Your task to perform on an android device: search for starred emails in the gmail app Image 0: 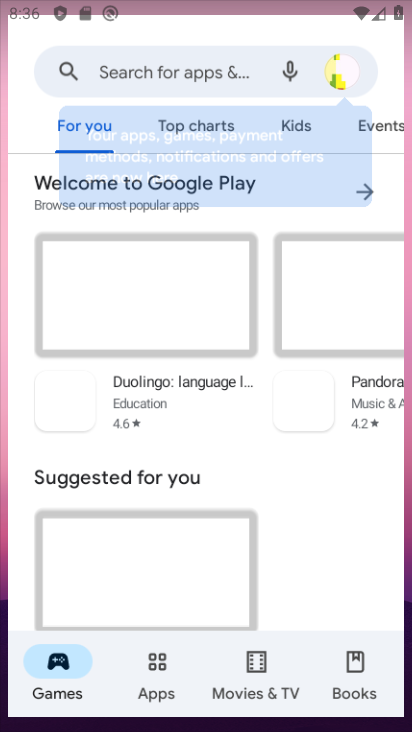
Step 0: drag from (203, 527) to (147, 190)
Your task to perform on an android device: search for starred emails in the gmail app Image 1: 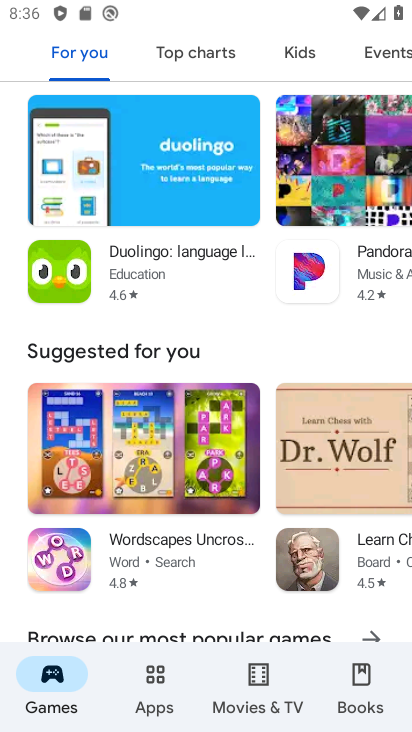
Step 1: press home button
Your task to perform on an android device: search for starred emails in the gmail app Image 2: 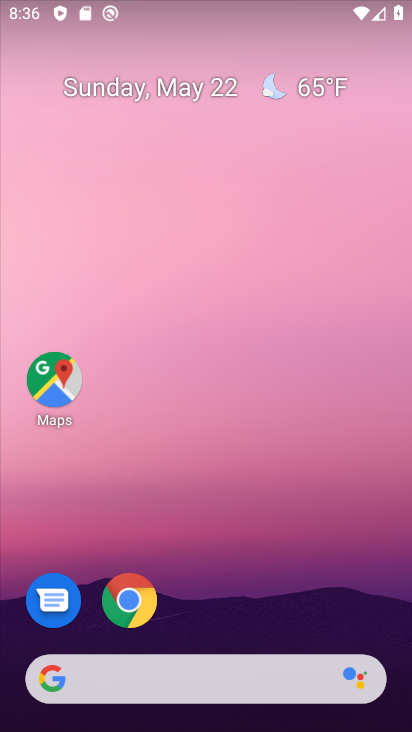
Step 2: drag from (225, 590) to (169, 123)
Your task to perform on an android device: search for starred emails in the gmail app Image 3: 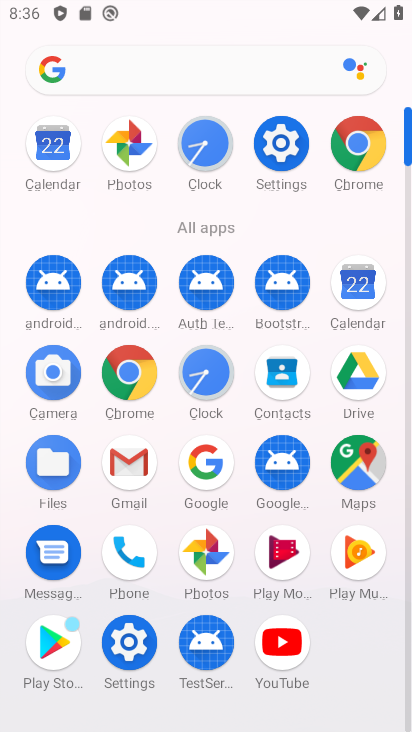
Step 3: click (143, 486)
Your task to perform on an android device: search for starred emails in the gmail app Image 4: 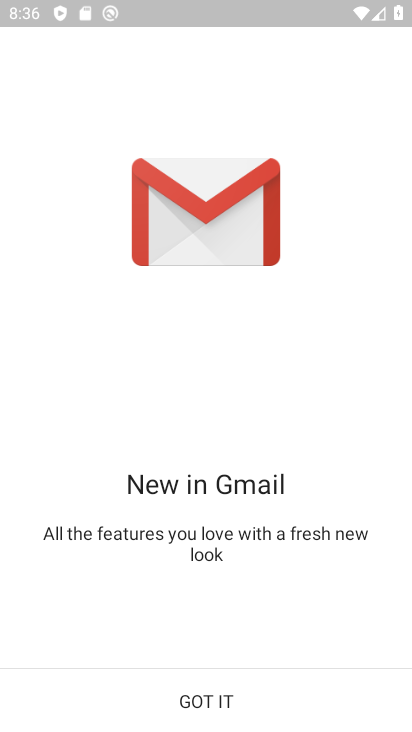
Step 4: click (221, 699)
Your task to perform on an android device: search for starred emails in the gmail app Image 5: 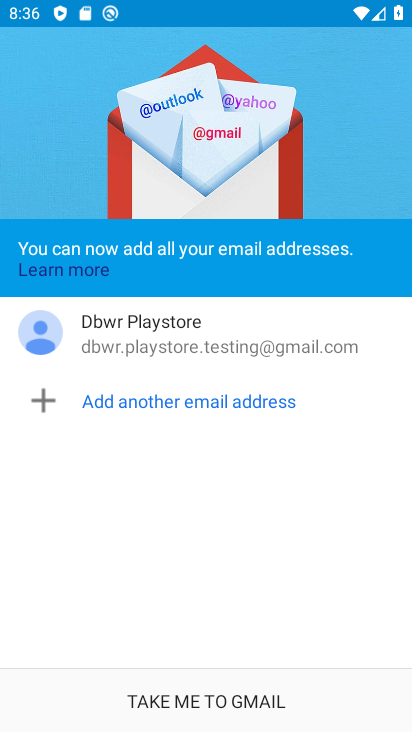
Step 5: click (205, 707)
Your task to perform on an android device: search for starred emails in the gmail app Image 6: 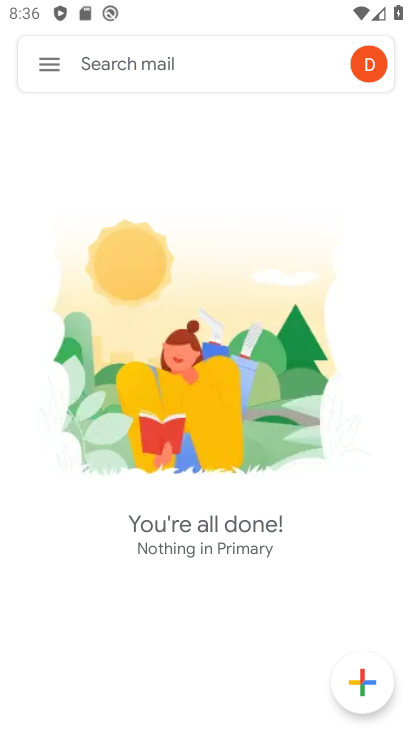
Step 6: click (45, 71)
Your task to perform on an android device: search for starred emails in the gmail app Image 7: 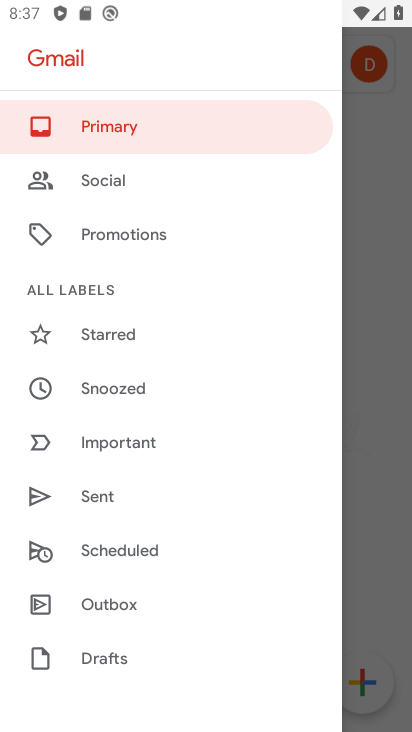
Step 7: drag from (118, 663) to (126, 397)
Your task to perform on an android device: search for starred emails in the gmail app Image 8: 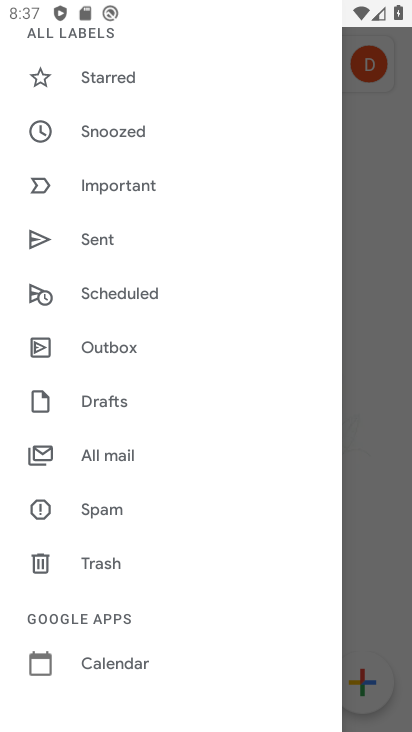
Step 8: drag from (172, 619) to (170, 468)
Your task to perform on an android device: search for starred emails in the gmail app Image 9: 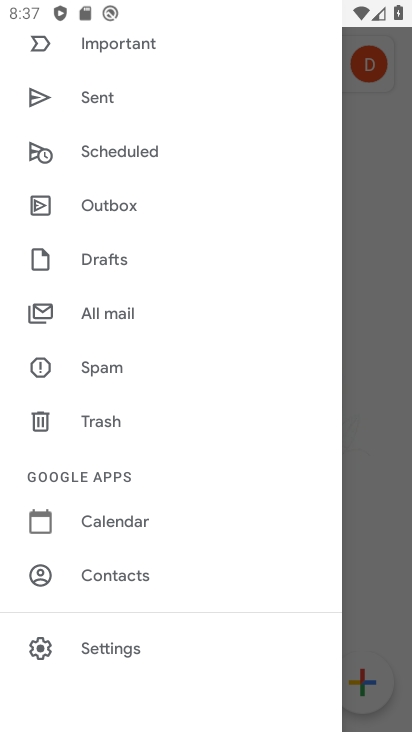
Step 9: drag from (147, 293) to (140, 644)
Your task to perform on an android device: search for starred emails in the gmail app Image 10: 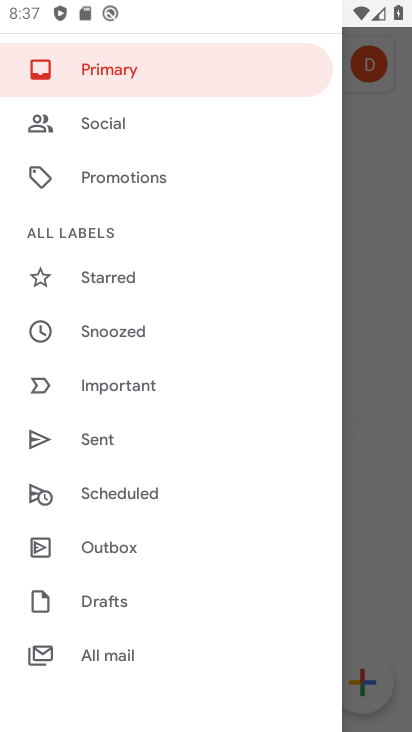
Step 10: click (126, 280)
Your task to perform on an android device: search for starred emails in the gmail app Image 11: 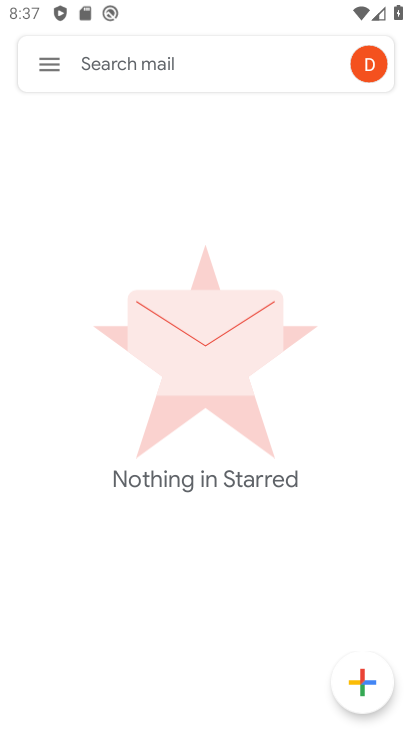
Step 11: task complete